Your task to perform on an android device: Open Google Maps Image 0: 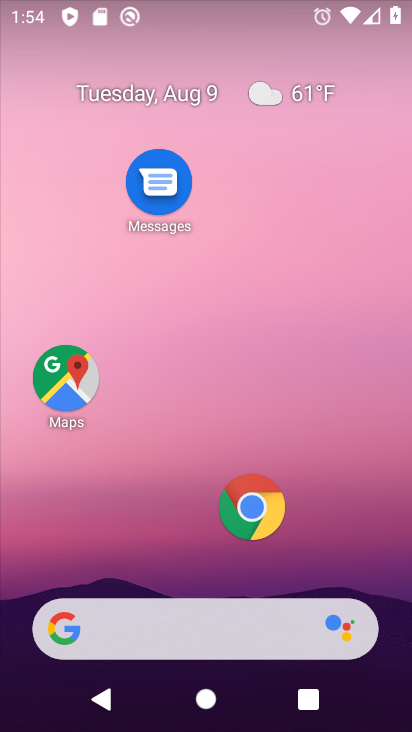
Step 0: click (66, 390)
Your task to perform on an android device: Open Google Maps Image 1: 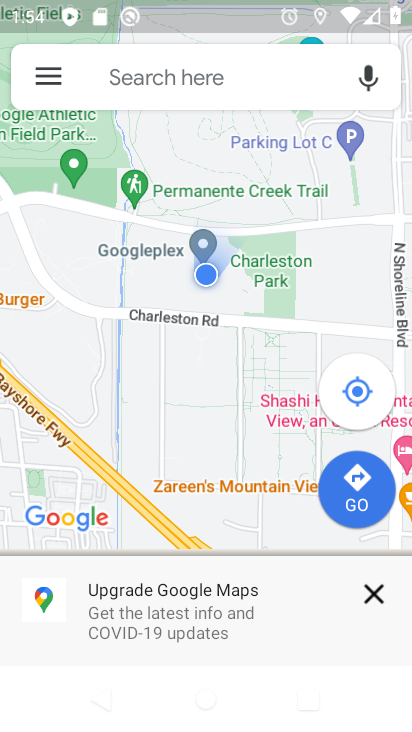
Step 1: task complete